Your task to perform on an android device: Open eBay Image 0: 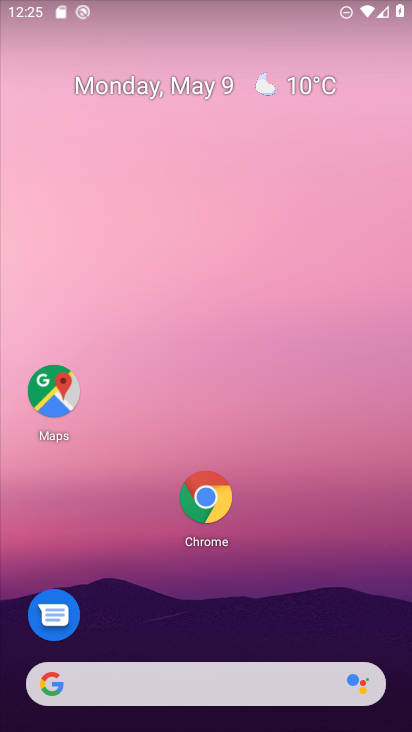
Step 0: drag from (322, 630) to (284, 82)
Your task to perform on an android device: Open eBay Image 1: 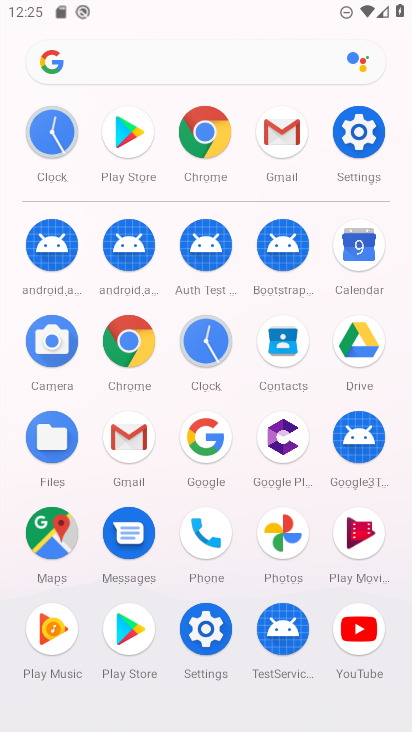
Step 1: drag from (310, 564) to (306, 366)
Your task to perform on an android device: Open eBay Image 2: 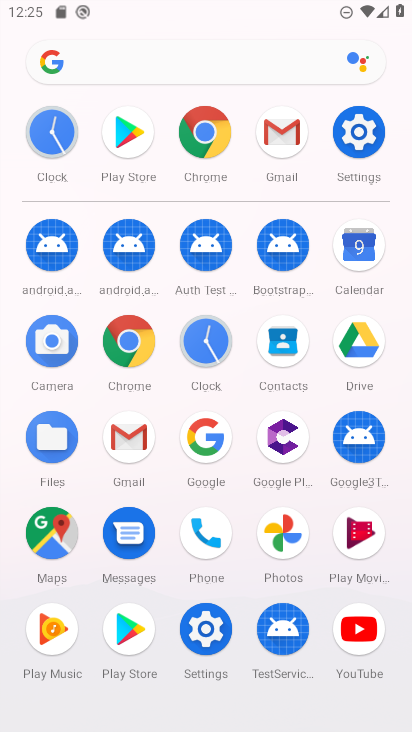
Step 2: click (128, 348)
Your task to perform on an android device: Open eBay Image 3: 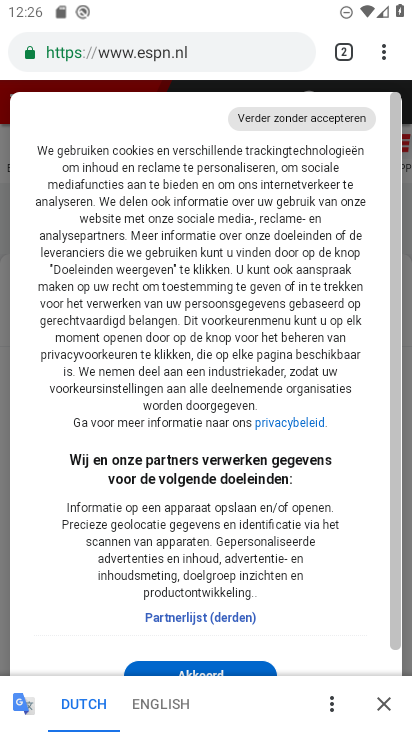
Step 3: click (209, 58)
Your task to perform on an android device: Open eBay Image 4: 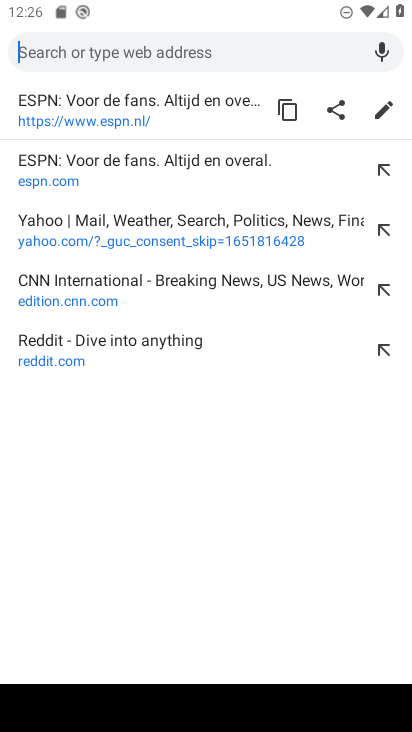
Step 4: type "ebay"
Your task to perform on an android device: Open eBay Image 5: 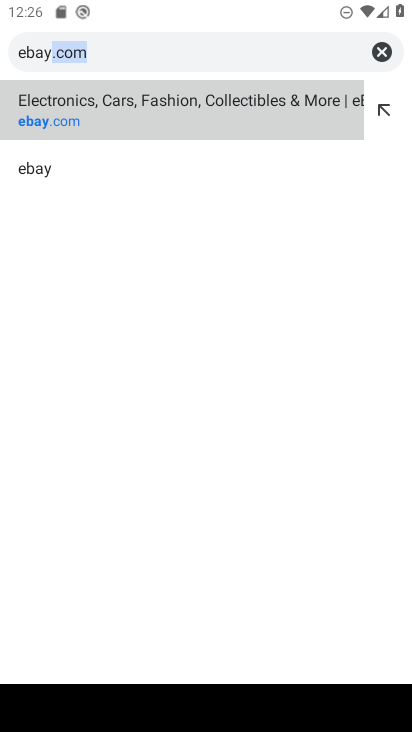
Step 5: click (153, 118)
Your task to perform on an android device: Open eBay Image 6: 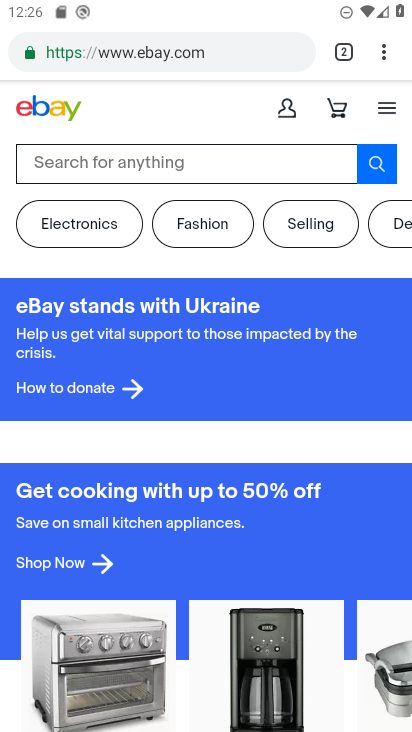
Step 6: task complete